Your task to perform on an android device: Open eBay Image 0: 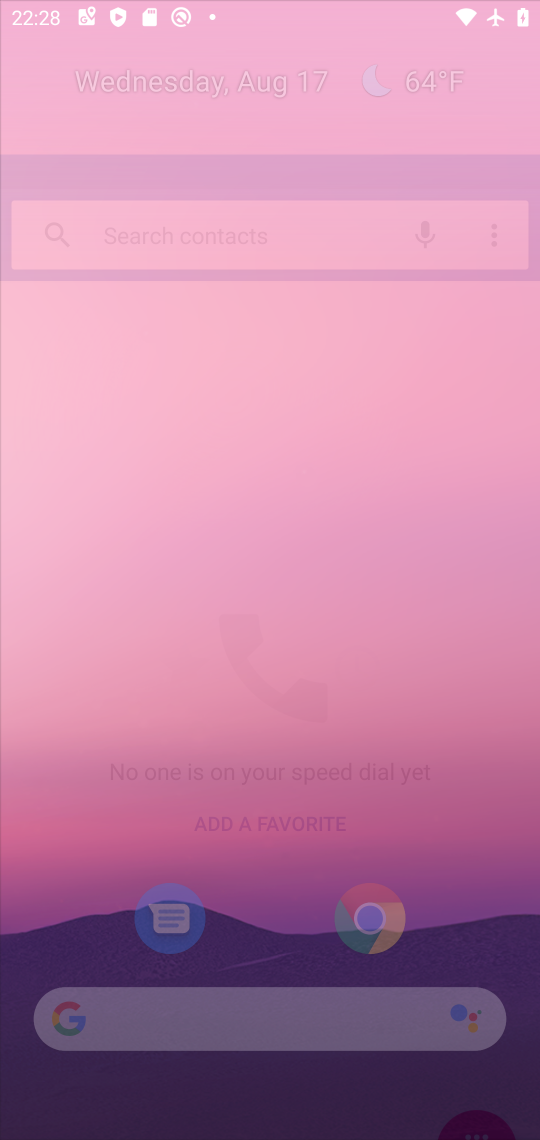
Step 0: press home button
Your task to perform on an android device: Open eBay Image 1: 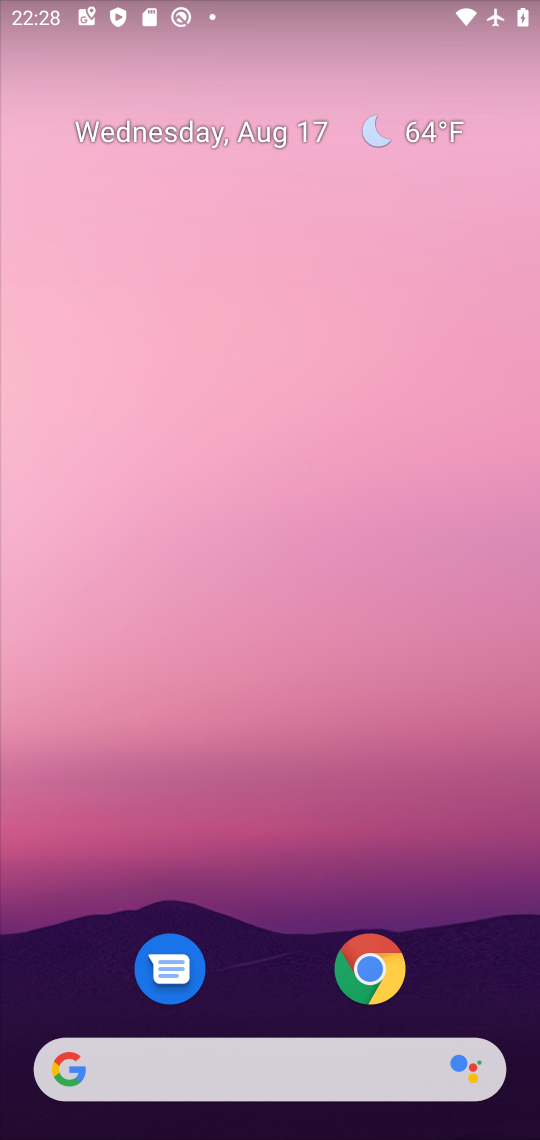
Step 1: click (380, 967)
Your task to perform on an android device: Open eBay Image 2: 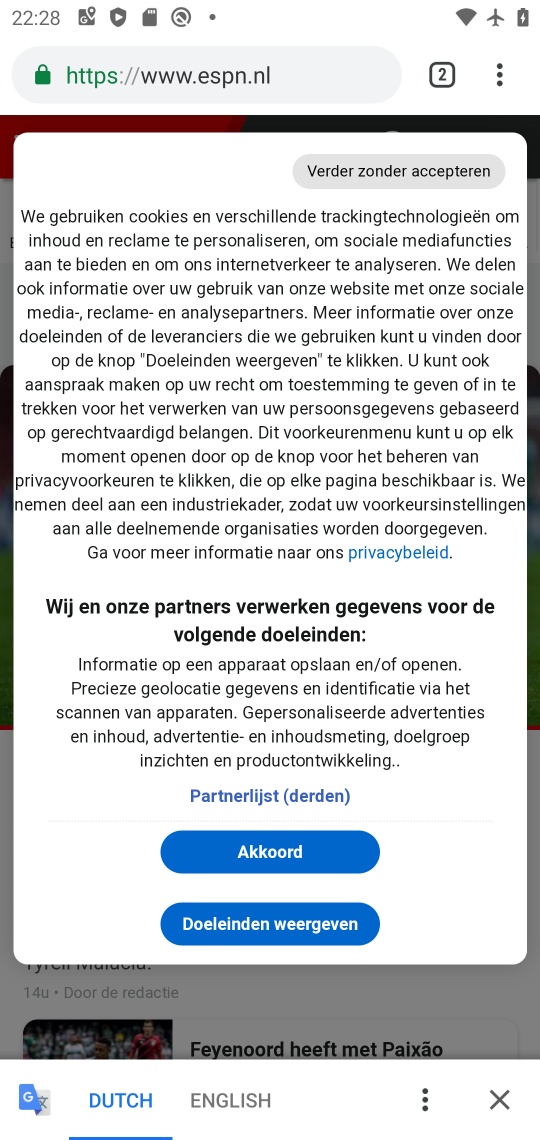
Step 2: click (499, 72)
Your task to perform on an android device: Open eBay Image 3: 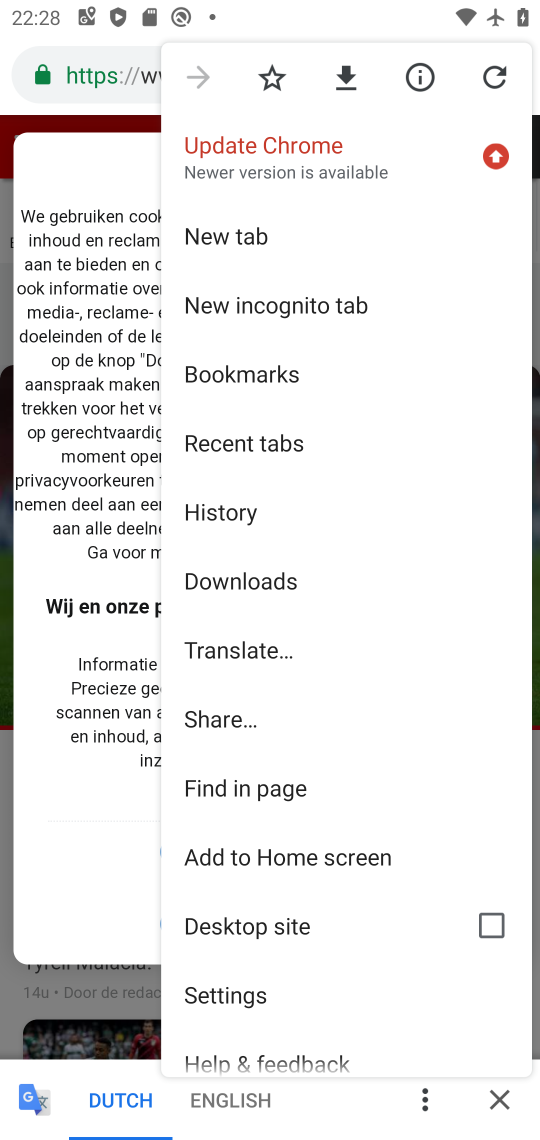
Step 3: click (237, 230)
Your task to perform on an android device: Open eBay Image 4: 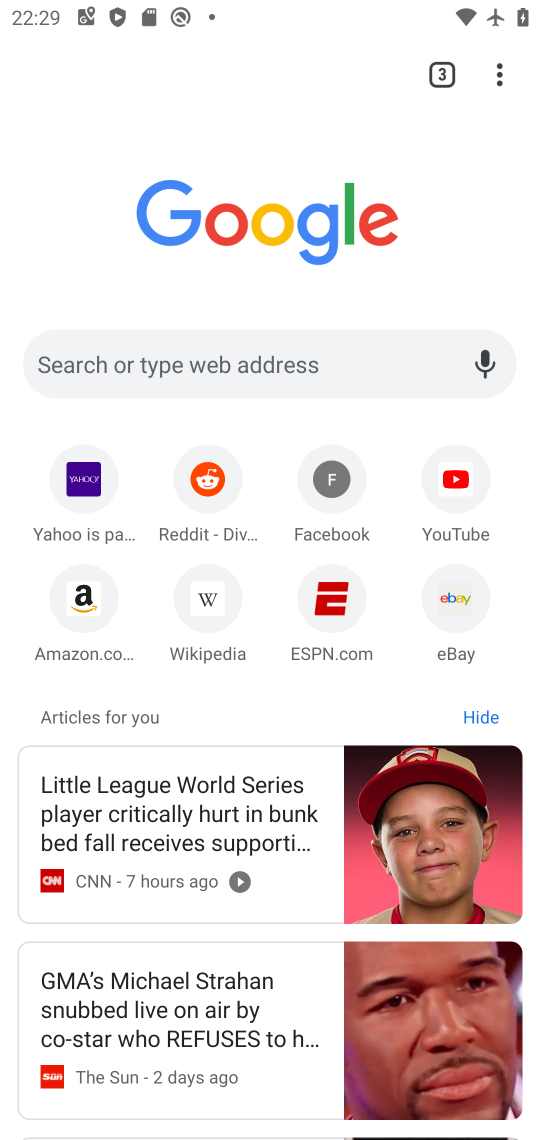
Step 4: click (456, 606)
Your task to perform on an android device: Open eBay Image 5: 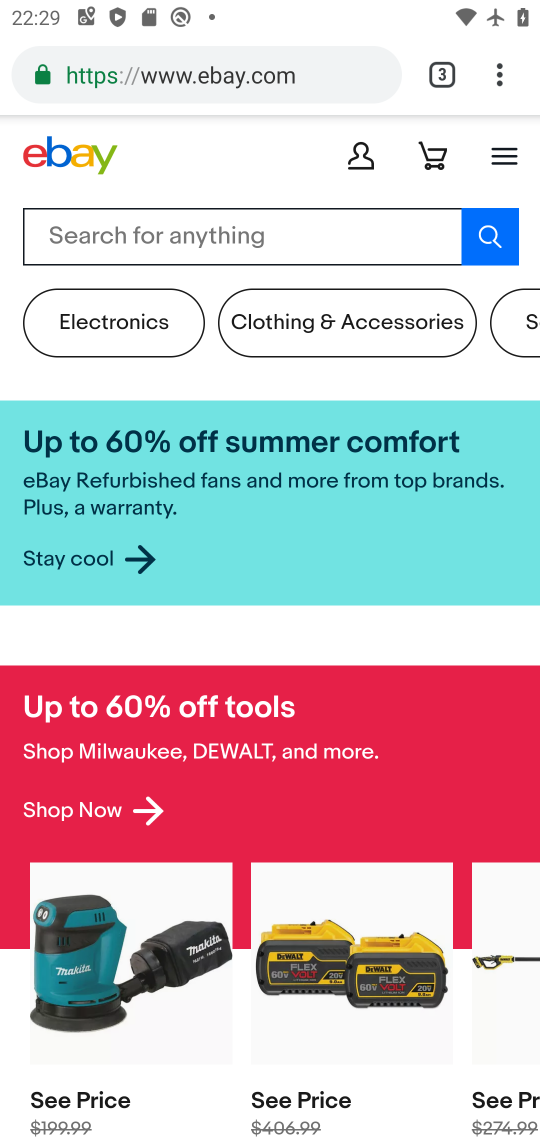
Step 5: task complete